Your task to perform on an android device: Is it going to rain this weekend? Image 0: 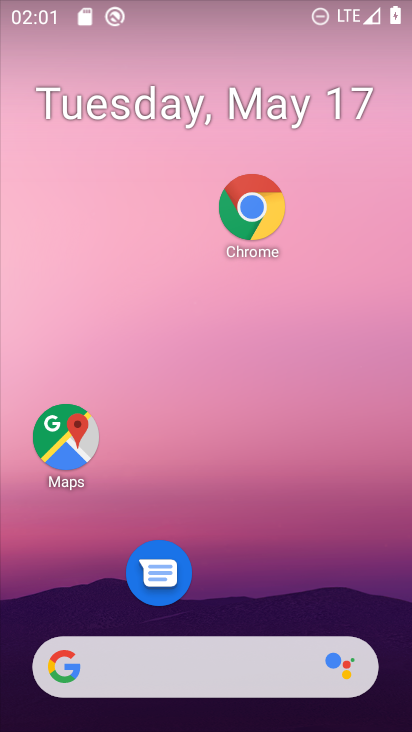
Step 0: drag from (90, 284) to (393, 281)
Your task to perform on an android device: Is it going to rain this weekend? Image 1: 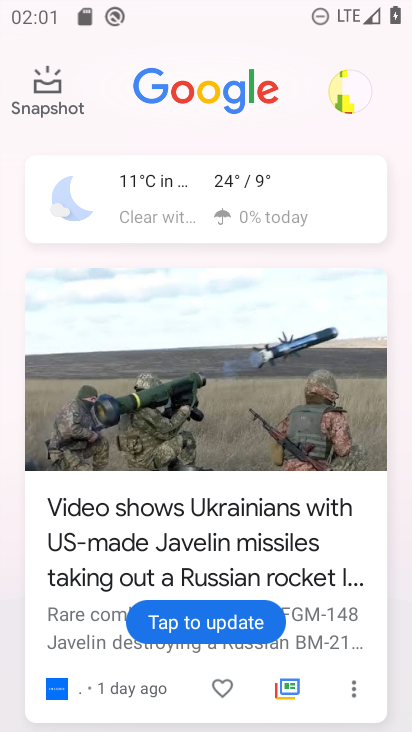
Step 1: click (146, 174)
Your task to perform on an android device: Is it going to rain this weekend? Image 2: 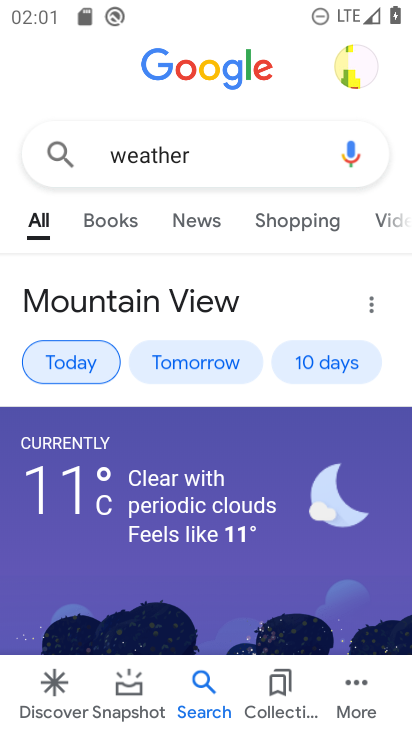
Step 2: drag from (294, 598) to (318, 88)
Your task to perform on an android device: Is it going to rain this weekend? Image 3: 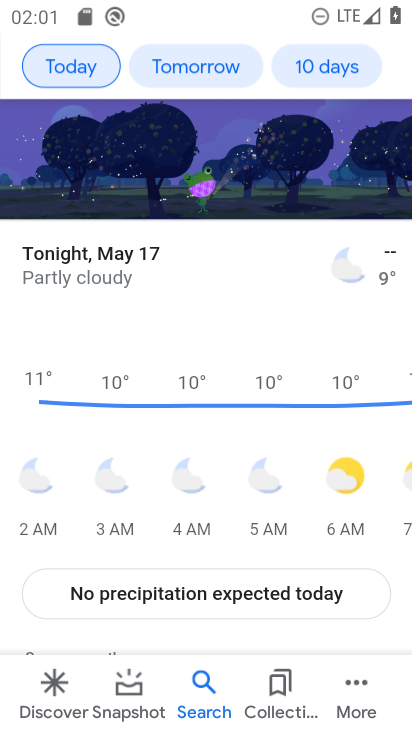
Step 3: drag from (245, 193) to (316, 668)
Your task to perform on an android device: Is it going to rain this weekend? Image 4: 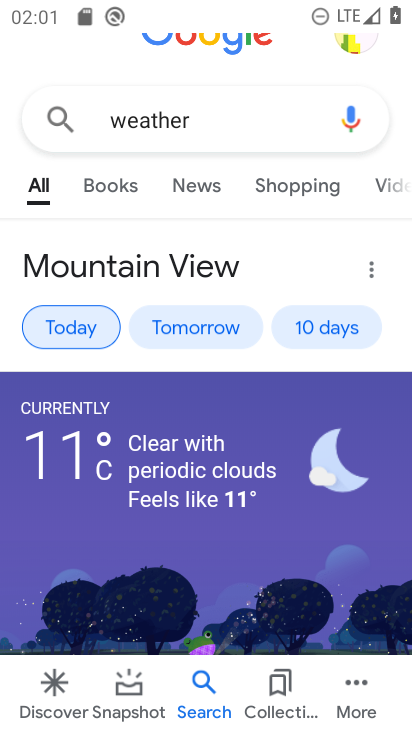
Step 4: click (317, 325)
Your task to perform on an android device: Is it going to rain this weekend? Image 5: 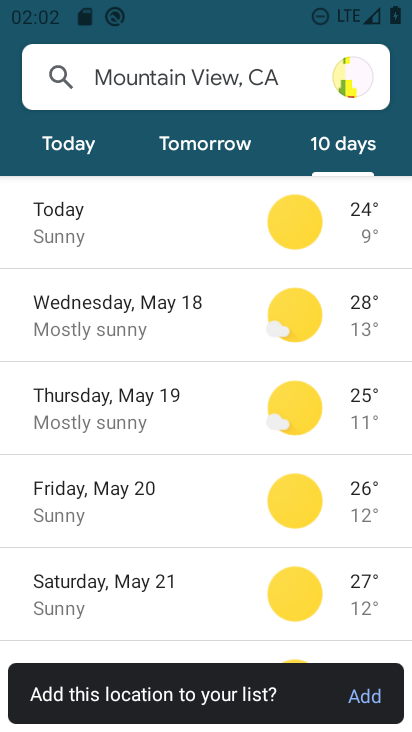
Step 5: drag from (262, 634) to (278, 392)
Your task to perform on an android device: Is it going to rain this weekend? Image 6: 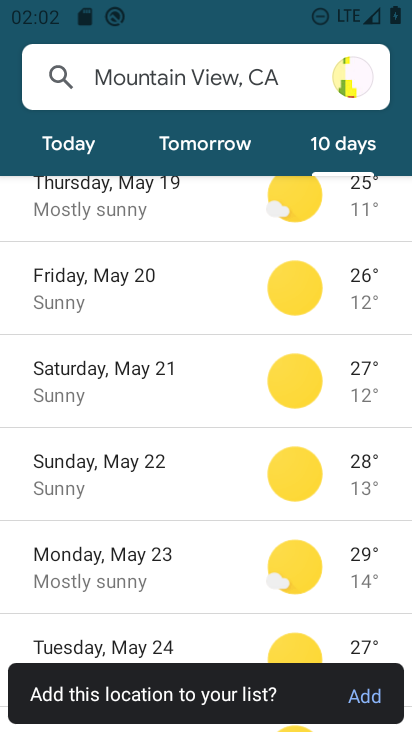
Step 6: click (216, 387)
Your task to perform on an android device: Is it going to rain this weekend? Image 7: 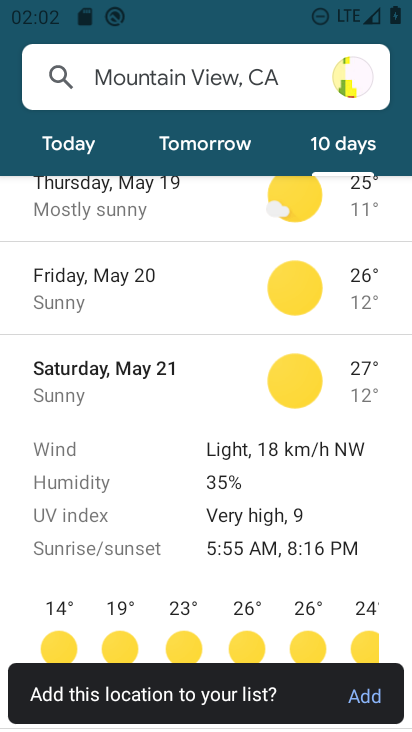
Step 7: task complete